Your task to perform on an android device: Show the shopping cart on amazon.com. Add apple airpods to the cart on amazon.com, then select checkout. Image 0: 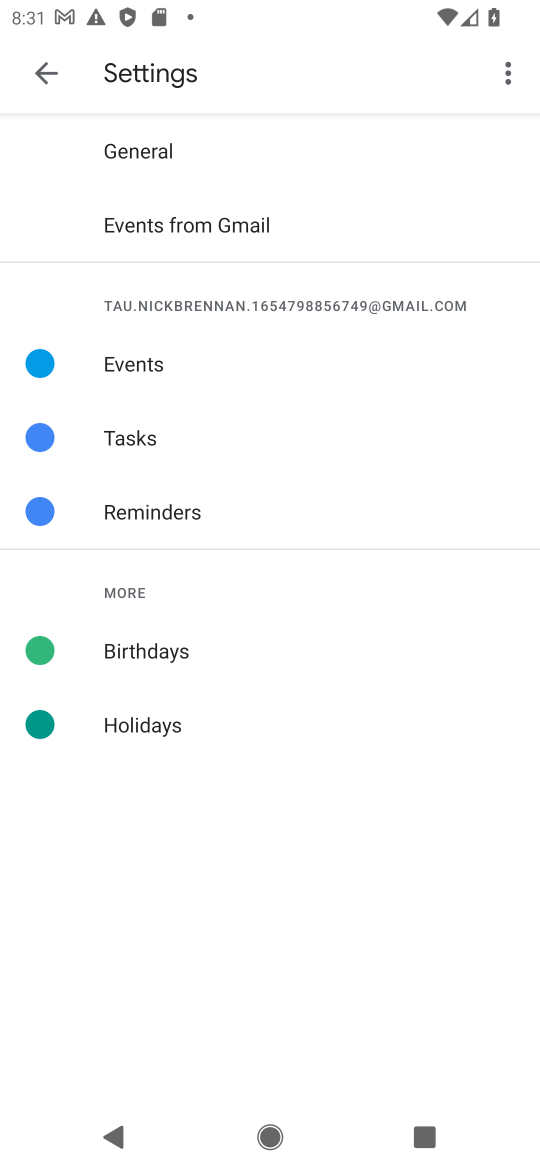
Step 0: press home button
Your task to perform on an android device: Show the shopping cart on amazon.com. Add apple airpods to the cart on amazon.com, then select checkout. Image 1: 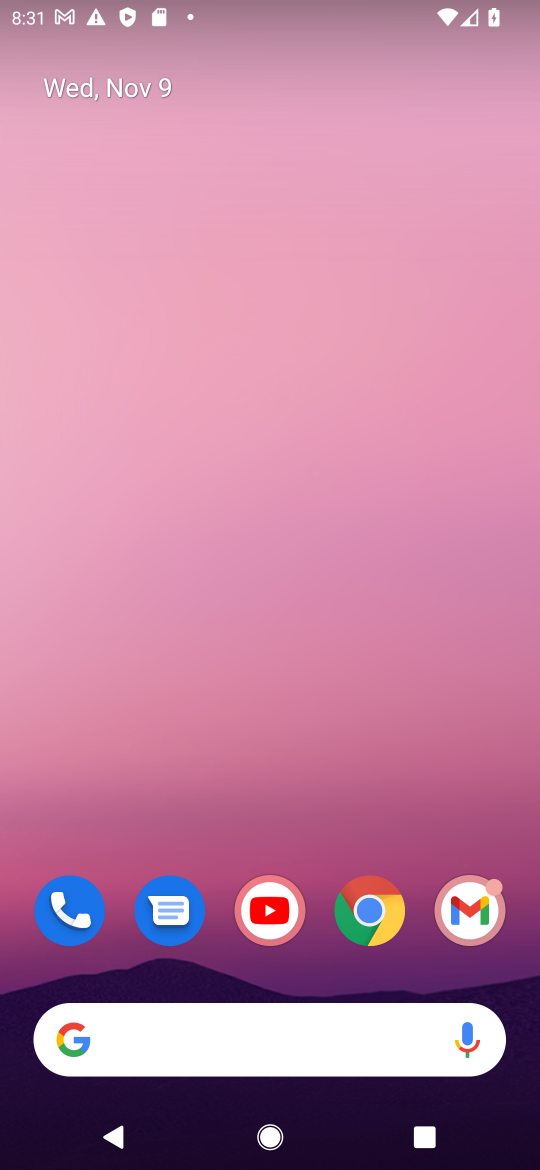
Step 1: click (361, 920)
Your task to perform on an android device: Show the shopping cart on amazon.com. Add apple airpods to the cart on amazon.com, then select checkout. Image 2: 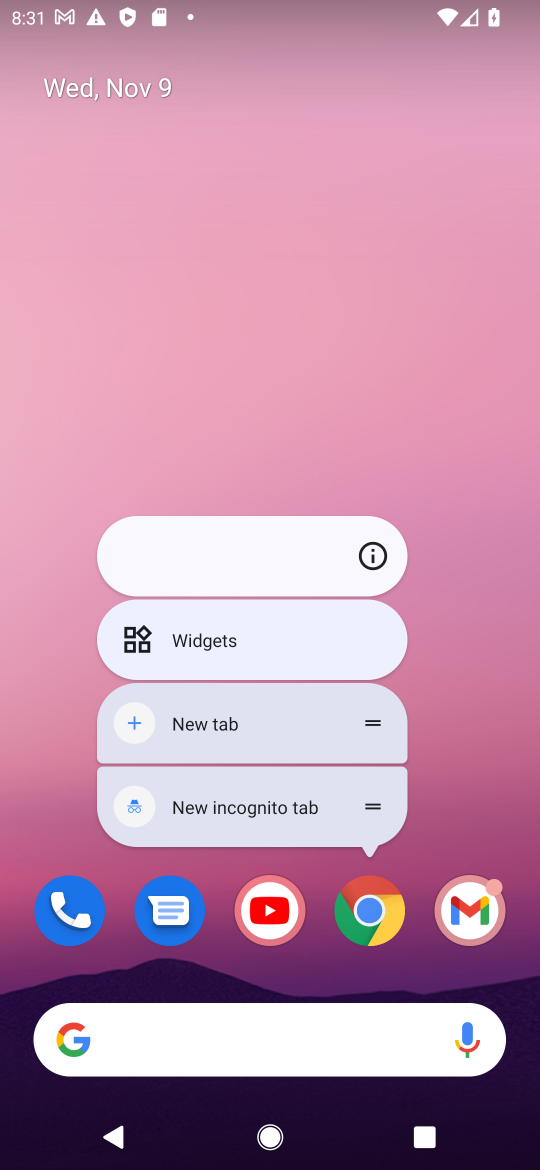
Step 2: click (373, 903)
Your task to perform on an android device: Show the shopping cart on amazon.com. Add apple airpods to the cart on amazon.com, then select checkout. Image 3: 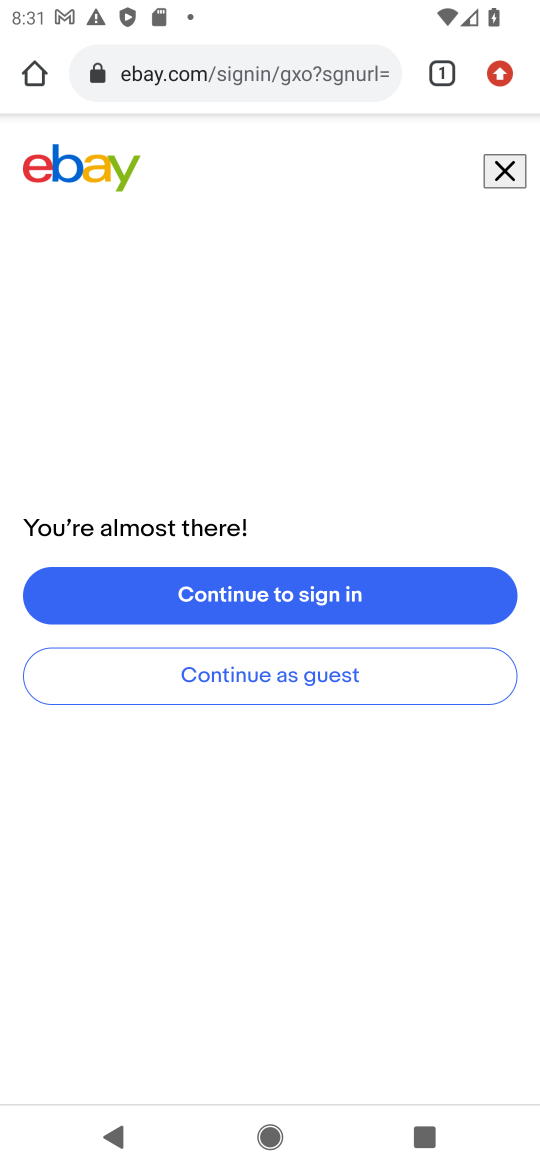
Step 3: click (208, 80)
Your task to perform on an android device: Show the shopping cart on amazon.com. Add apple airpods to the cart on amazon.com, then select checkout. Image 4: 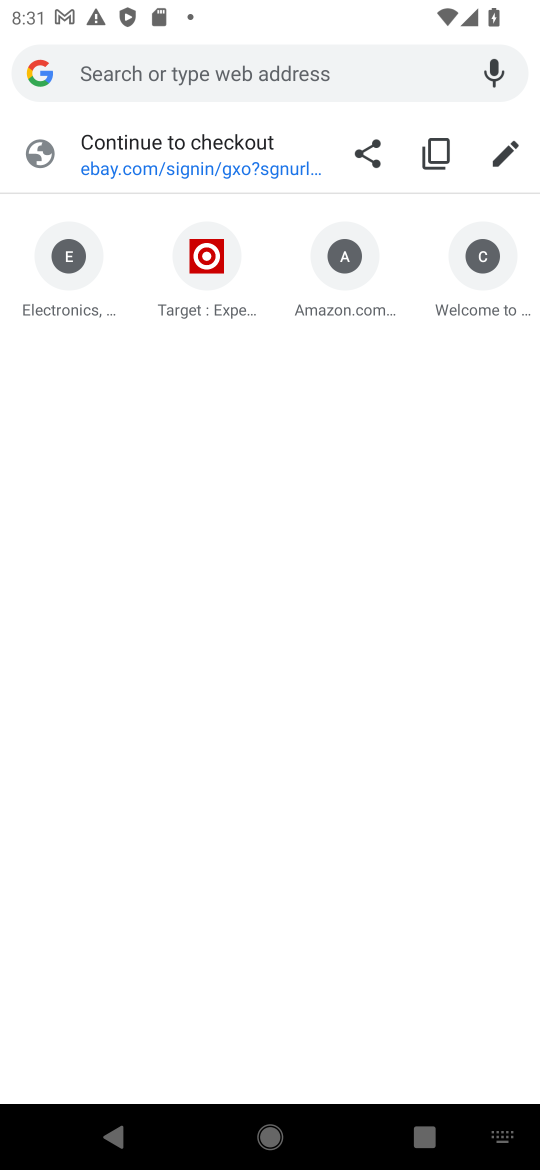
Step 4: click (330, 305)
Your task to perform on an android device: Show the shopping cart on amazon.com. Add apple airpods to the cart on amazon.com, then select checkout. Image 5: 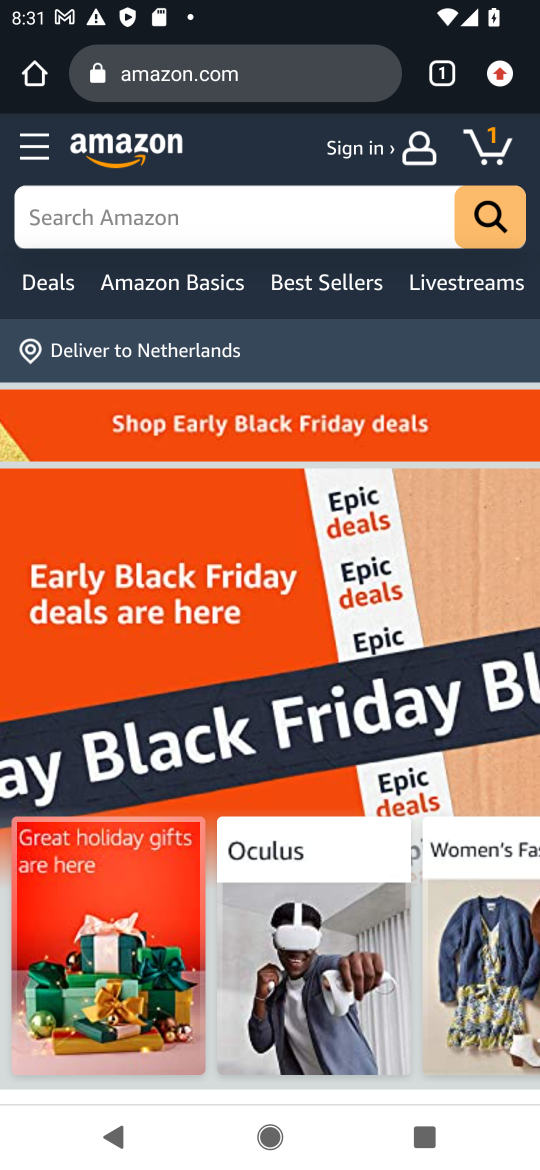
Step 5: click (498, 167)
Your task to perform on an android device: Show the shopping cart on amazon.com. Add apple airpods to the cart on amazon.com, then select checkout. Image 6: 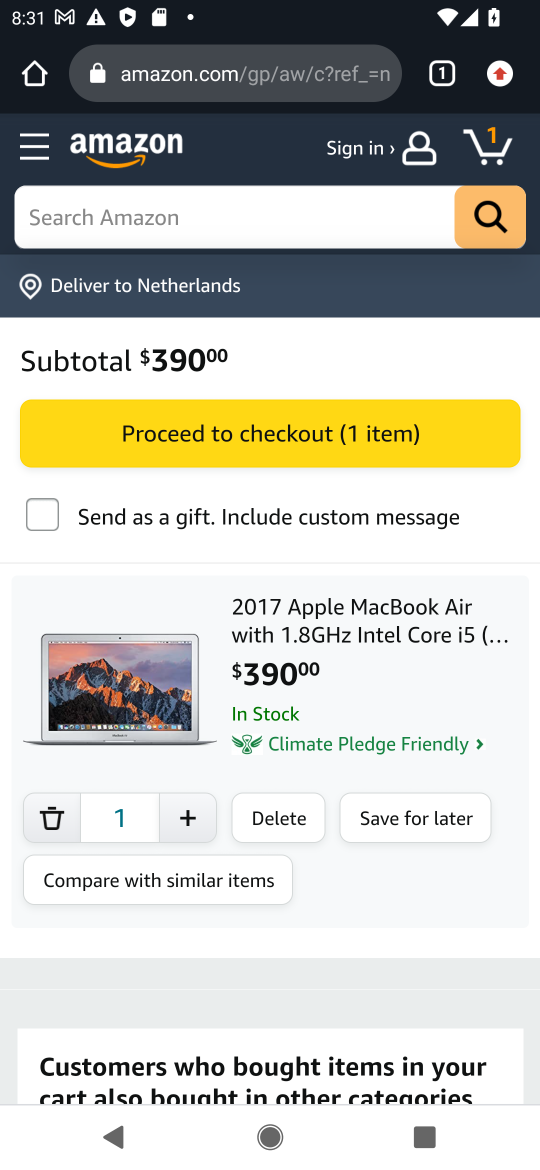
Step 6: drag from (432, 656) to (451, 488)
Your task to perform on an android device: Show the shopping cart on amazon.com. Add apple airpods to the cart on amazon.com, then select checkout. Image 7: 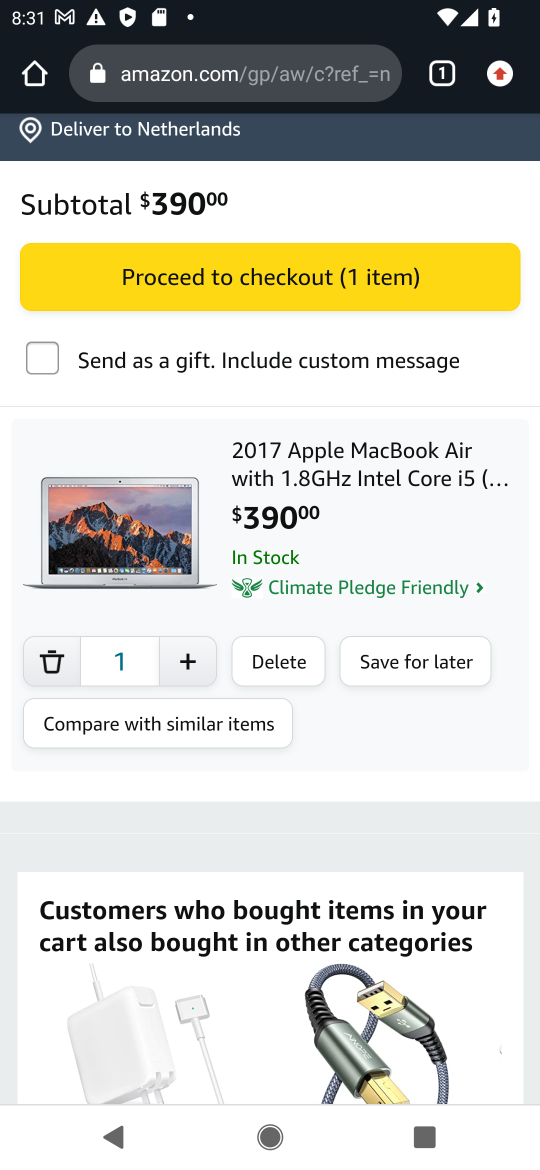
Step 7: drag from (266, 274) to (310, 604)
Your task to perform on an android device: Show the shopping cart on amazon.com. Add apple airpods to the cart on amazon.com, then select checkout. Image 8: 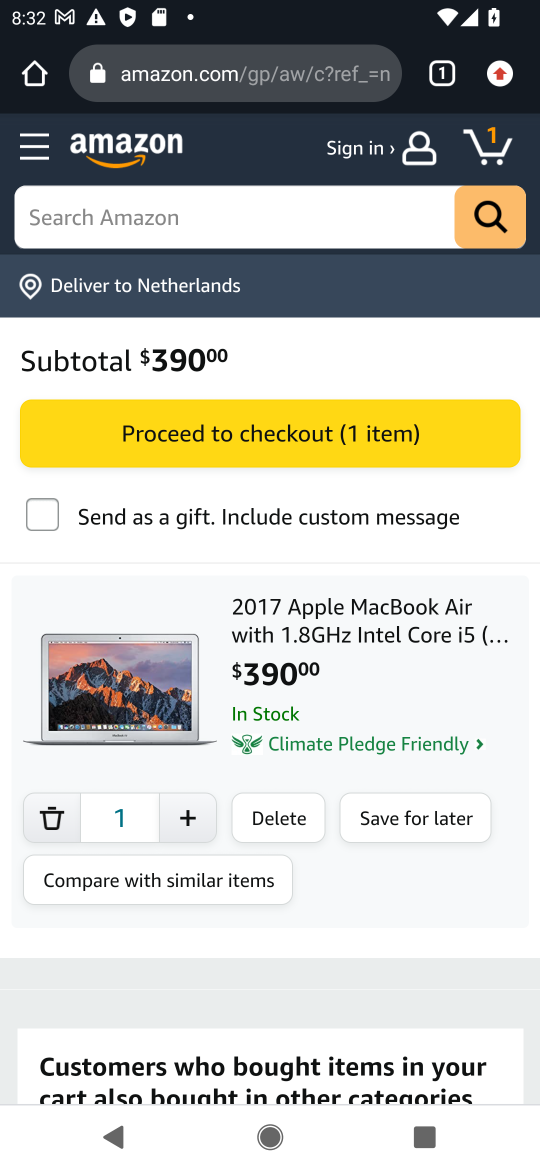
Step 8: click (100, 225)
Your task to perform on an android device: Show the shopping cart on amazon.com. Add apple airpods to the cart on amazon.com, then select checkout. Image 9: 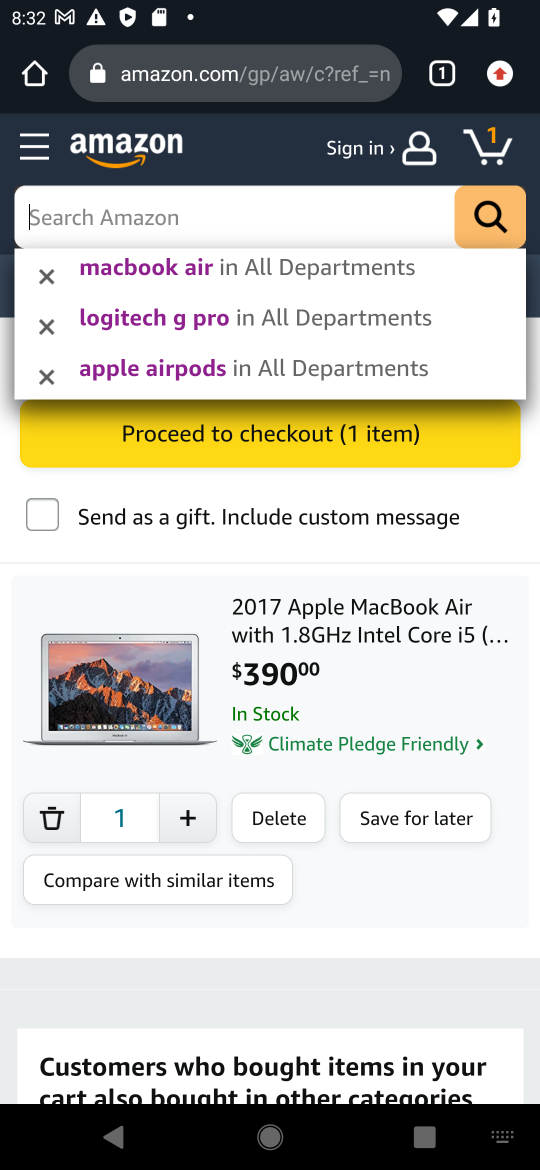
Step 9: type "apple airpods"
Your task to perform on an android device: Show the shopping cart on amazon.com. Add apple airpods to the cart on amazon.com, then select checkout. Image 10: 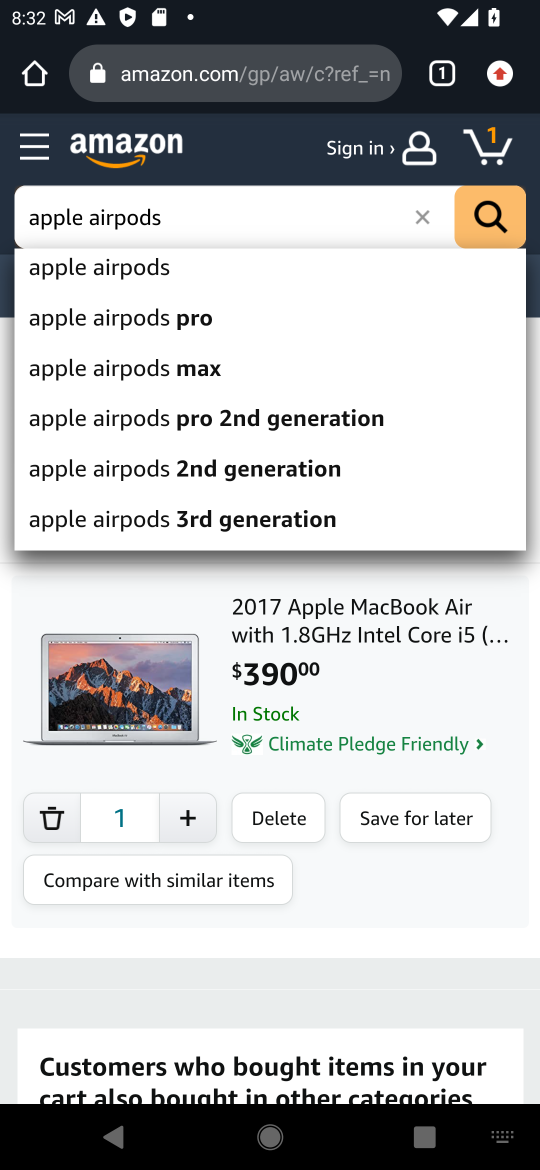
Step 10: click (124, 277)
Your task to perform on an android device: Show the shopping cart on amazon.com. Add apple airpods to the cart on amazon.com, then select checkout. Image 11: 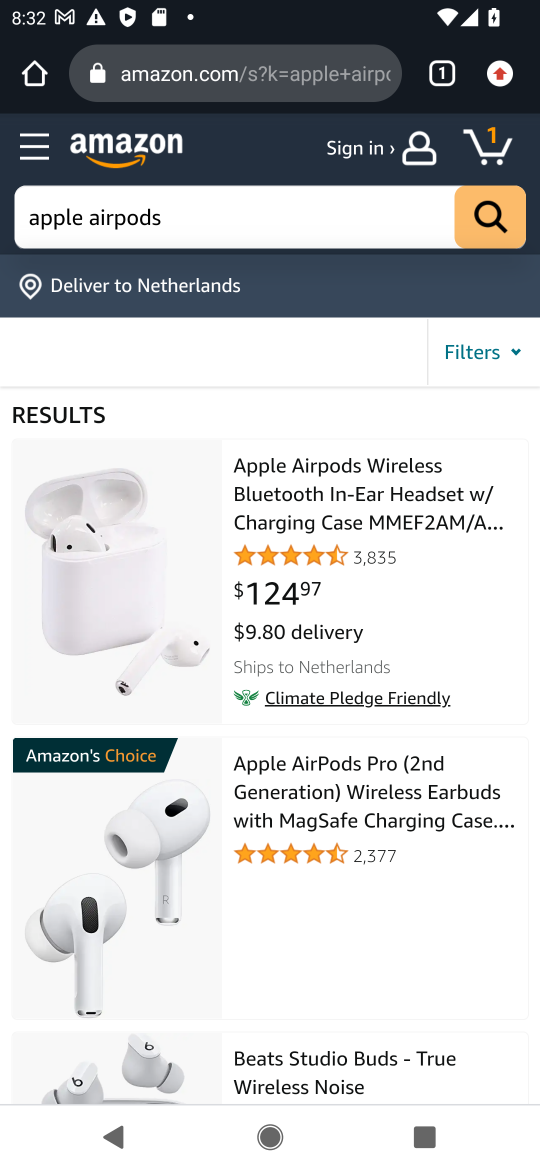
Step 11: click (115, 585)
Your task to perform on an android device: Show the shopping cart on amazon.com. Add apple airpods to the cart on amazon.com, then select checkout. Image 12: 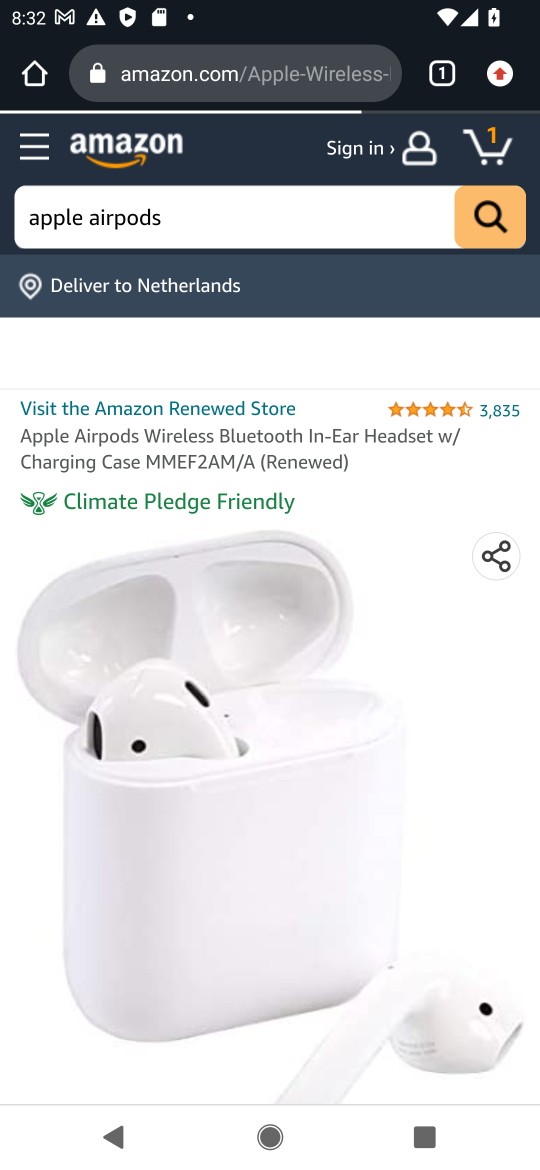
Step 12: drag from (197, 857) to (178, 420)
Your task to perform on an android device: Show the shopping cart on amazon.com. Add apple airpods to the cart on amazon.com, then select checkout. Image 13: 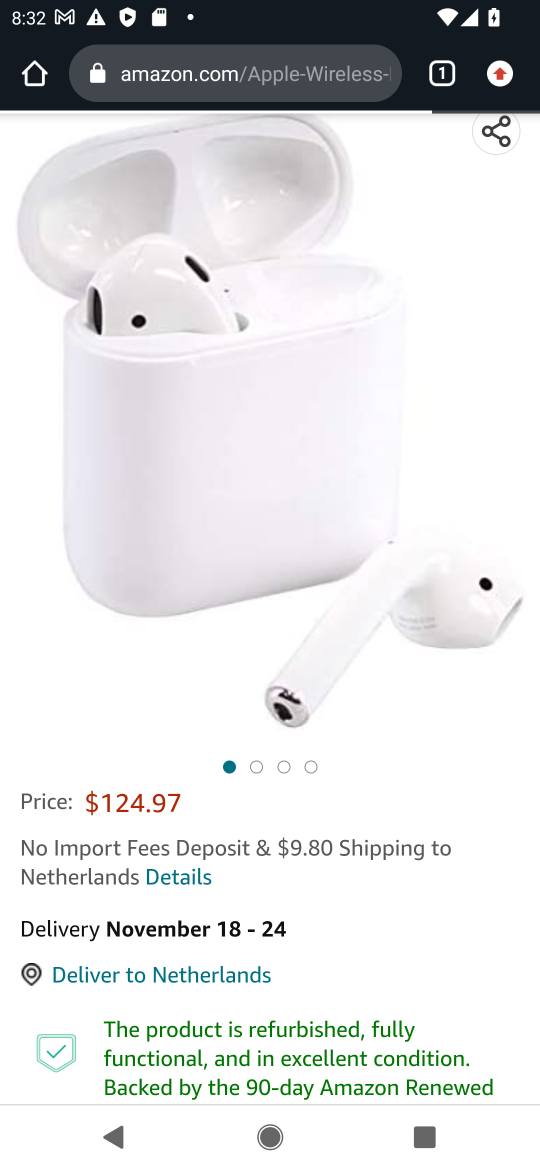
Step 13: drag from (184, 741) to (178, 426)
Your task to perform on an android device: Show the shopping cart on amazon.com. Add apple airpods to the cart on amazon.com, then select checkout. Image 14: 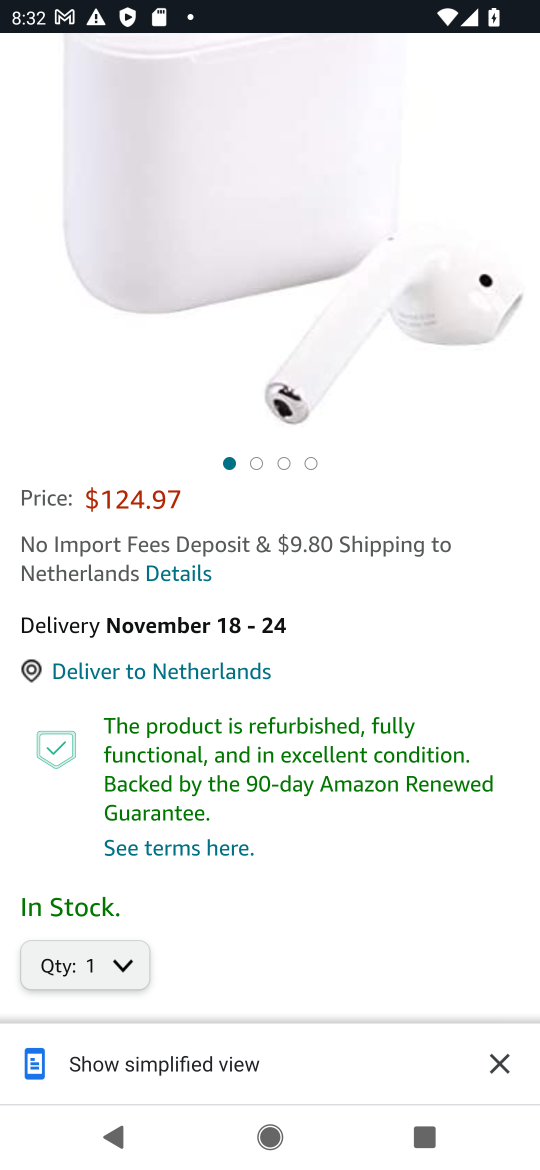
Step 14: drag from (189, 761) to (164, 381)
Your task to perform on an android device: Show the shopping cart on amazon.com. Add apple airpods to the cart on amazon.com, then select checkout. Image 15: 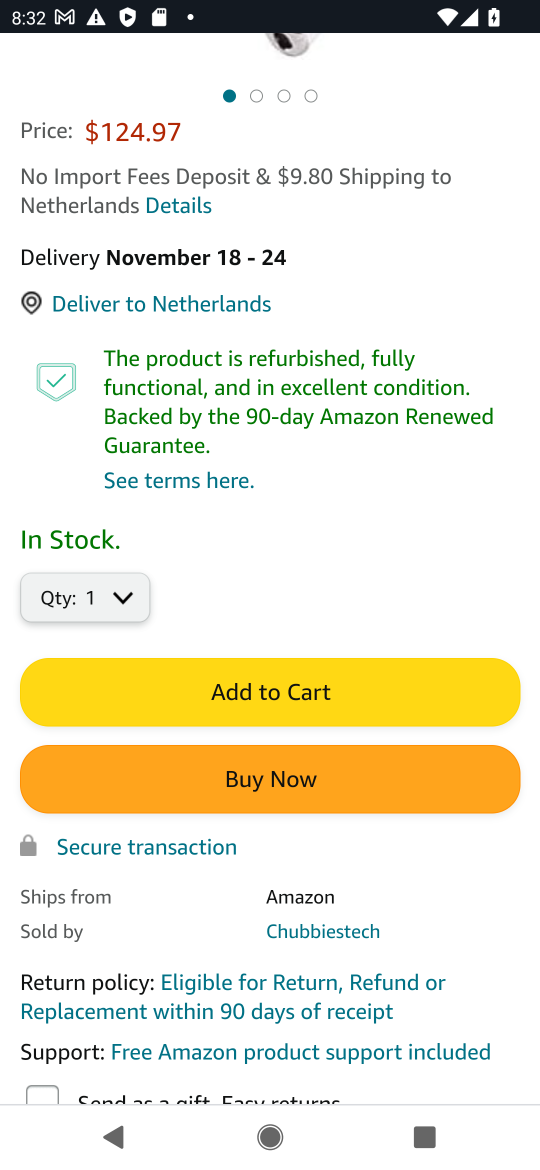
Step 15: click (212, 705)
Your task to perform on an android device: Show the shopping cart on amazon.com. Add apple airpods to the cart on amazon.com, then select checkout. Image 16: 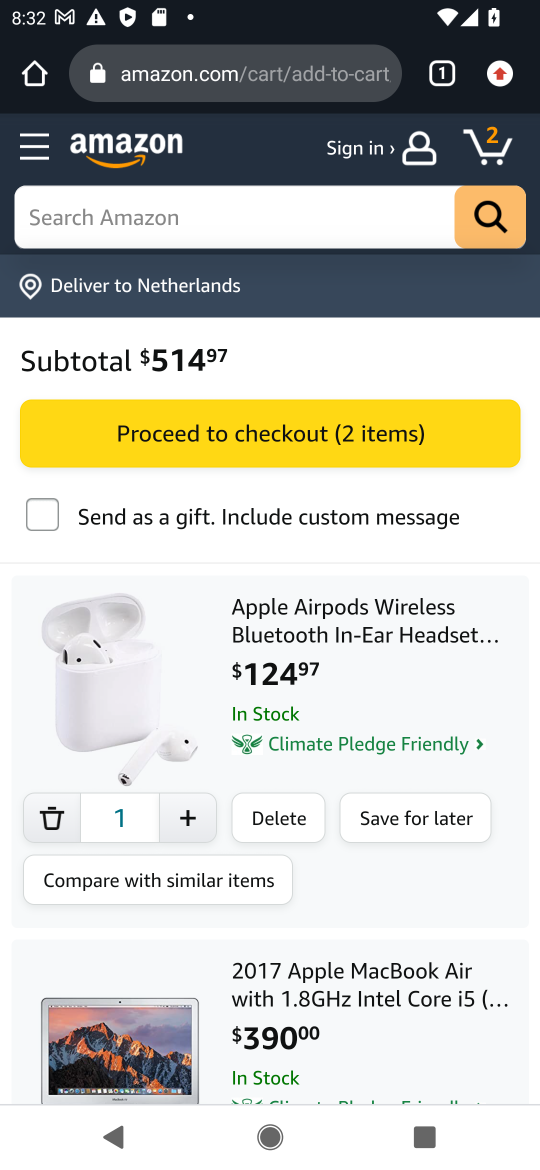
Step 16: click (252, 441)
Your task to perform on an android device: Show the shopping cart on amazon.com. Add apple airpods to the cart on amazon.com, then select checkout. Image 17: 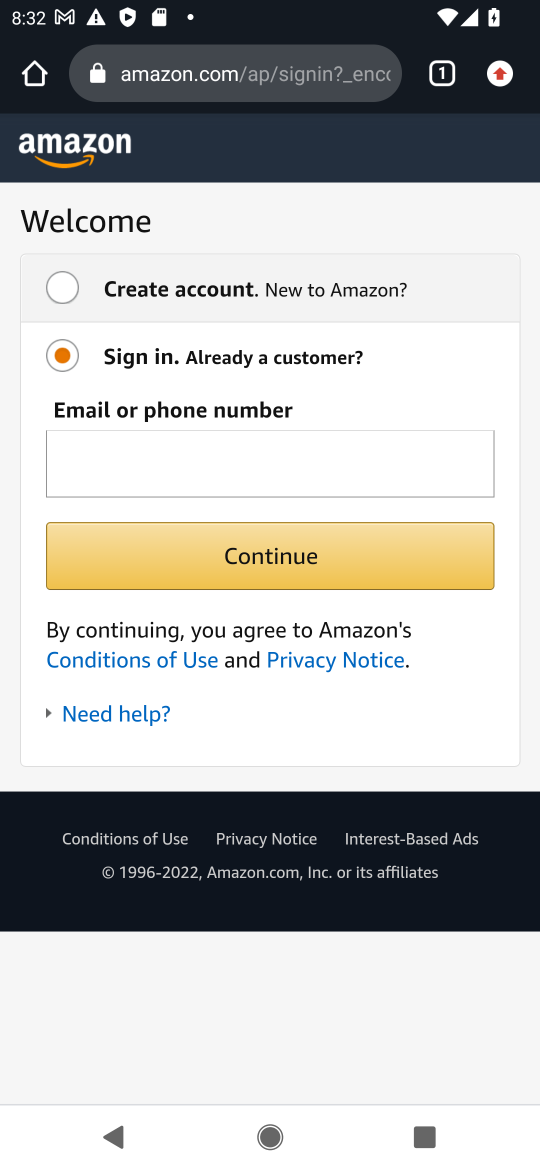
Step 17: task complete